Your task to perform on an android device: set the stopwatch Image 0: 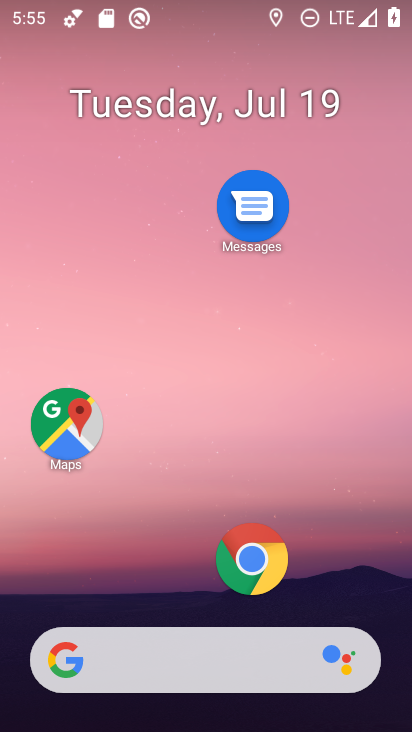
Step 0: drag from (160, 611) to (253, 3)
Your task to perform on an android device: set the stopwatch Image 1: 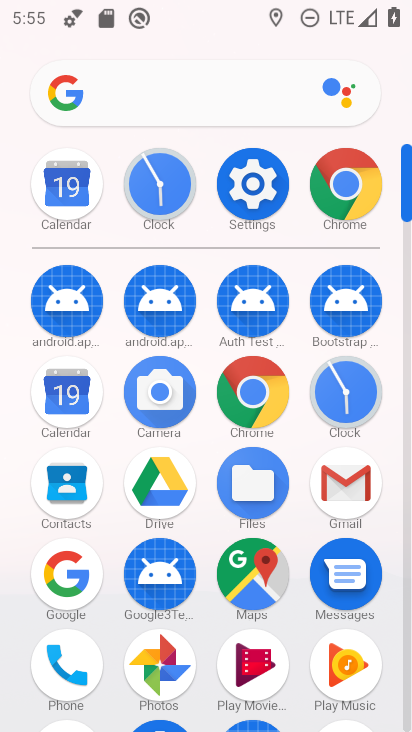
Step 1: click (155, 182)
Your task to perform on an android device: set the stopwatch Image 2: 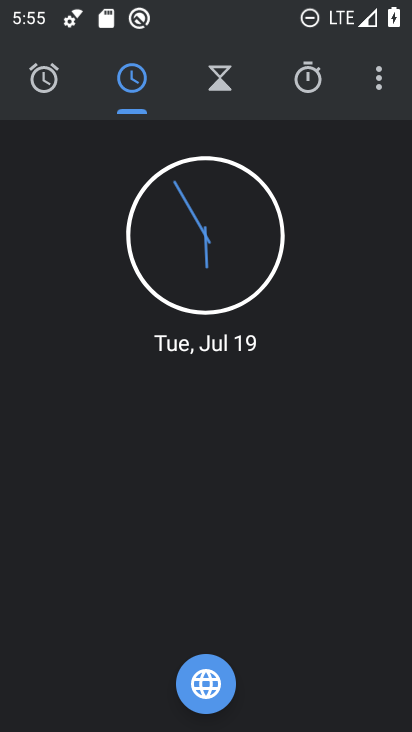
Step 2: click (327, 62)
Your task to perform on an android device: set the stopwatch Image 3: 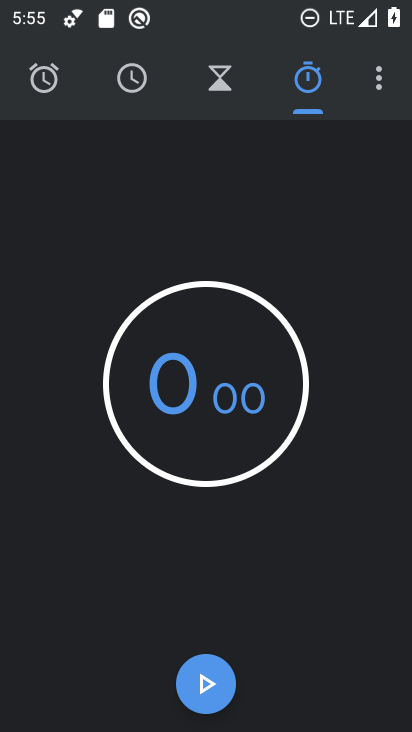
Step 3: click (191, 393)
Your task to perform on an android device: set the stopwatch Image 4: 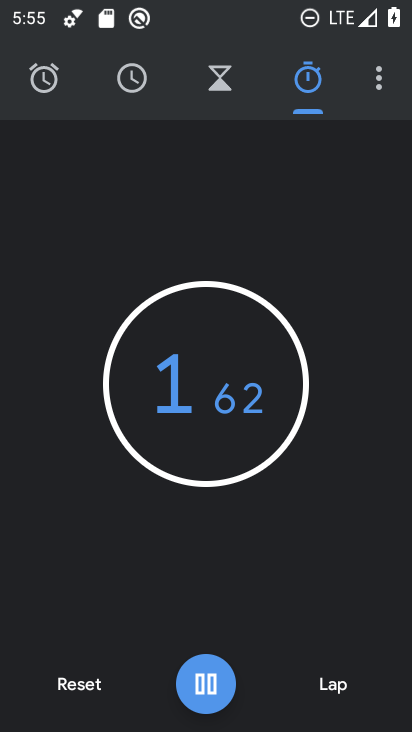
Step 4: click (191, 390)
Your task to perform on an android device: set the stopwatch Image 5: 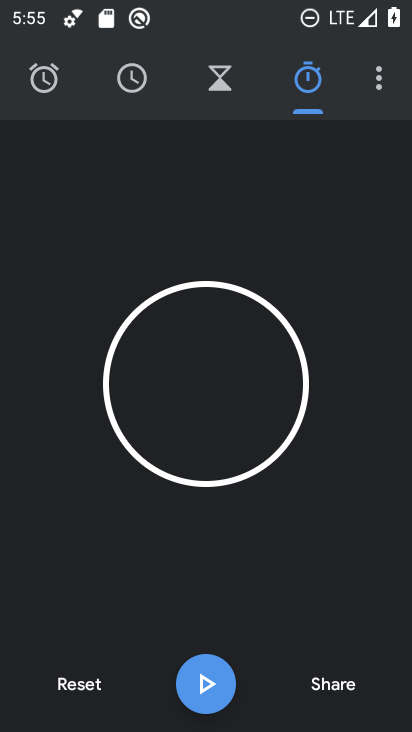
Step 5: task complete